Your task to perform on an android device: add a label to a message in the gmail app Image 0: 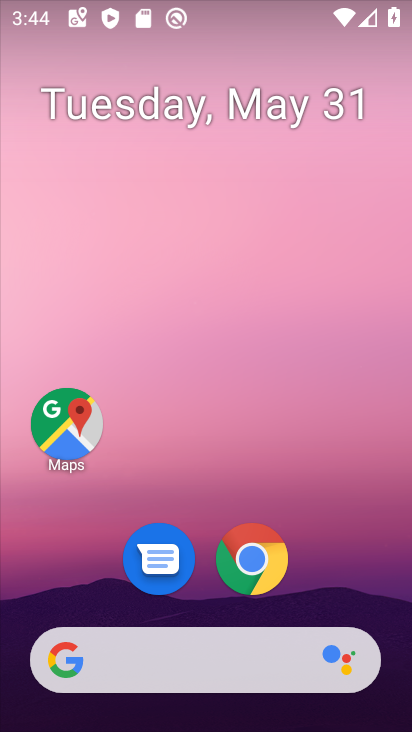
Step 0: drag from (239, 723) to (234, 250)
Your task to perform on an android device: add a label to a message in the gmail app Image 1: 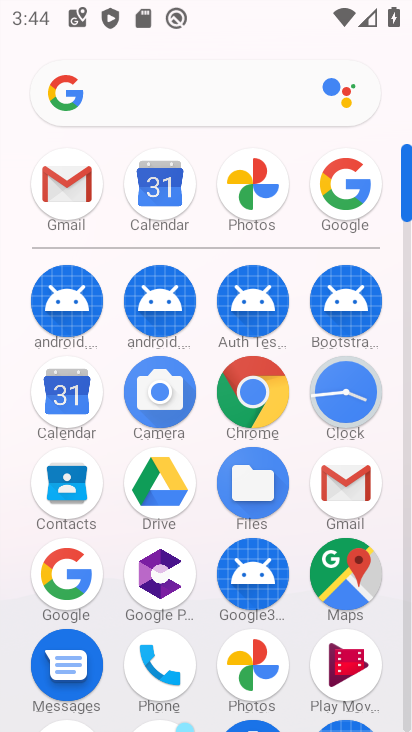
Step 1: click (331, 475)
Your task to perform on an android device: add a label to a message in the gmail app Image 2: 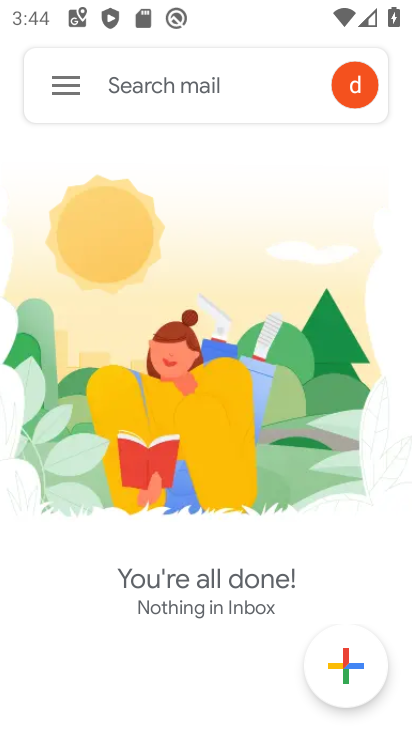
Step 2: click (65, 75)
Your task to perform on an android device: add a label to a message in the gmail app Image 3: 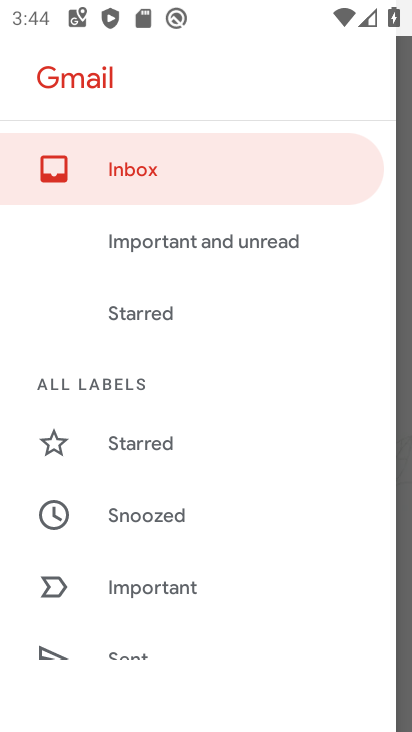
Step 3: click (145, 165)
Your task to perform on an android device: add a label to a message in the gmail app Image 4: 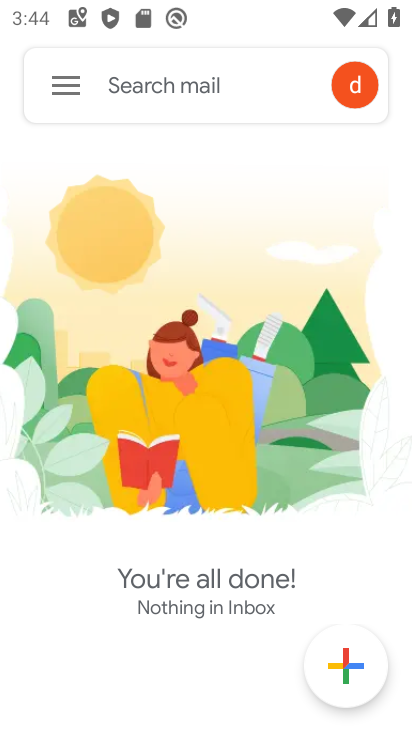
Step 4: task complete